Your task to perform on an android device: turn vacation reply on in the gmail app Image 0: 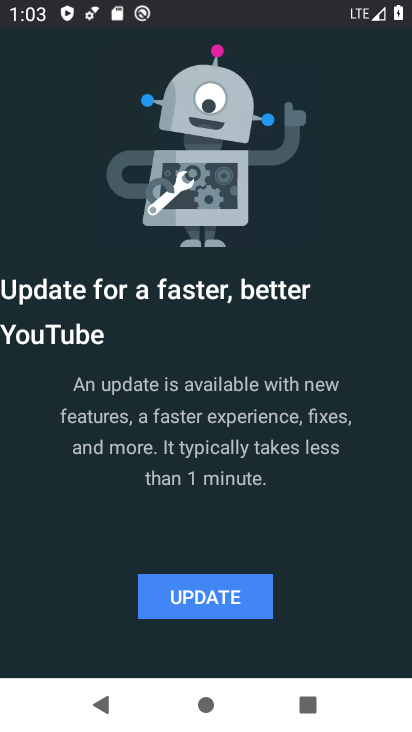
Step 0: press home button
Your task to perform on an android device: turn vacation reply on in the gmail app Image 1: 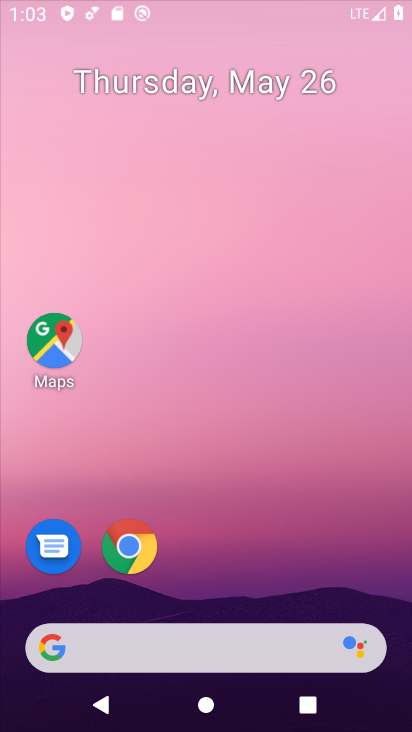
Step 1: drag from (328, 565) to (200, 3)
Your task to perform on an android device: turn vacation reply on in the gmail app Image 2: 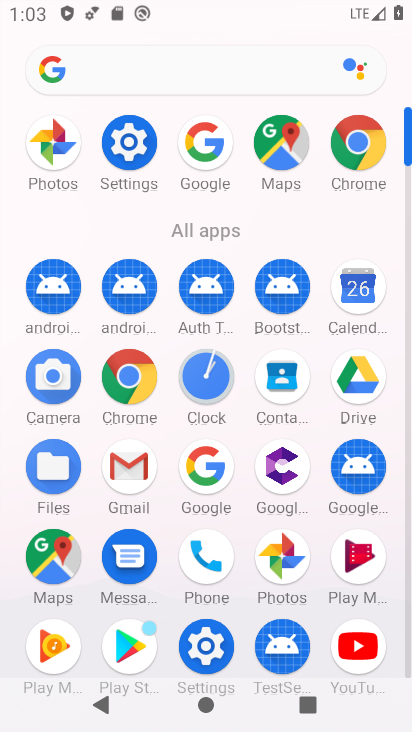
Step 2: click (126, 482)
Your task to perform on an android device: turn vacation reply on in the gmail app Image 3: 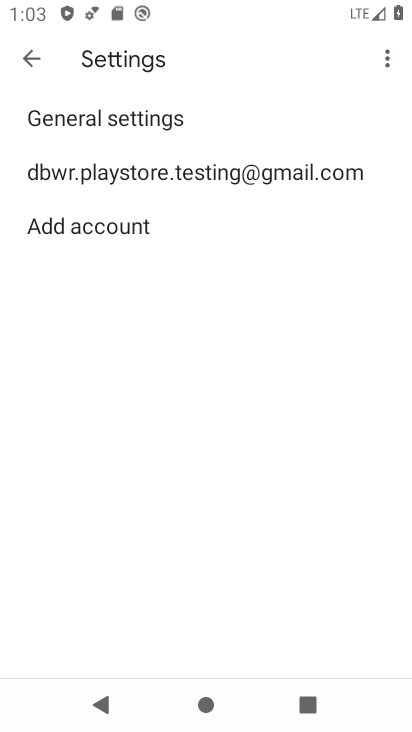
Step 3: click (68, 163)
Your task to perform on an android device: turn vacation reply on in the gmail app Image 4: 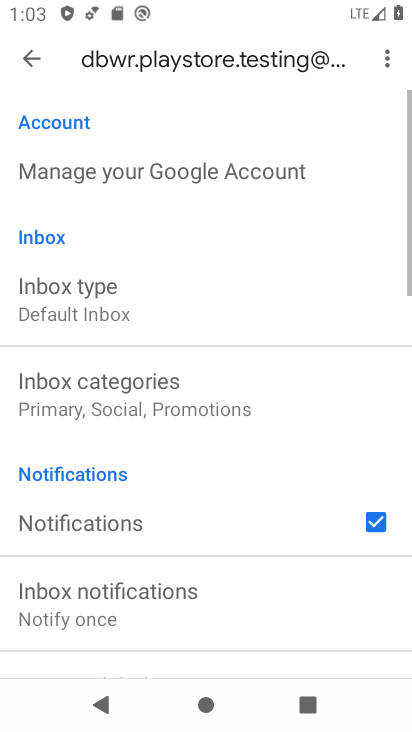
Step 4: drag from (206, 638) to (202, 59)
Your task to perform on an android device: turn vacation reply on in the gmail app Image 5: 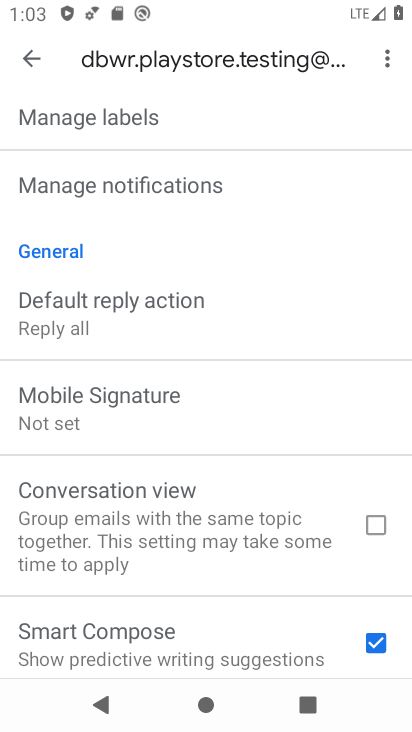
Step 5: drag from (217, 596) to (257, 70)
Your task to perform on an android device: turn vacation reply on in the gmail app Image 6: 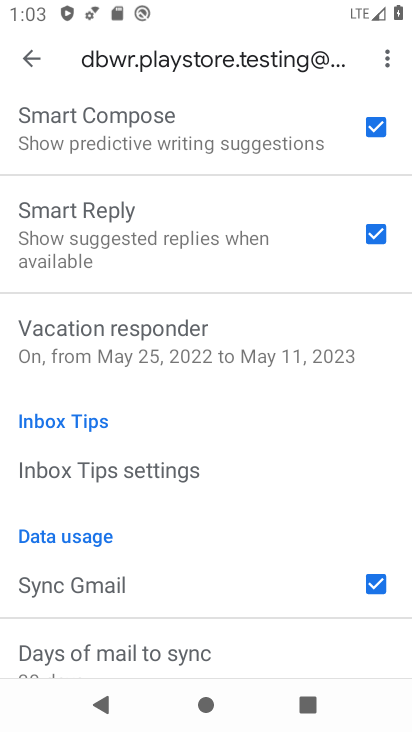
Step 6: click (149, 353)
Your task to perform on an android device: turn vacation reply on in the gmail app Image 7: 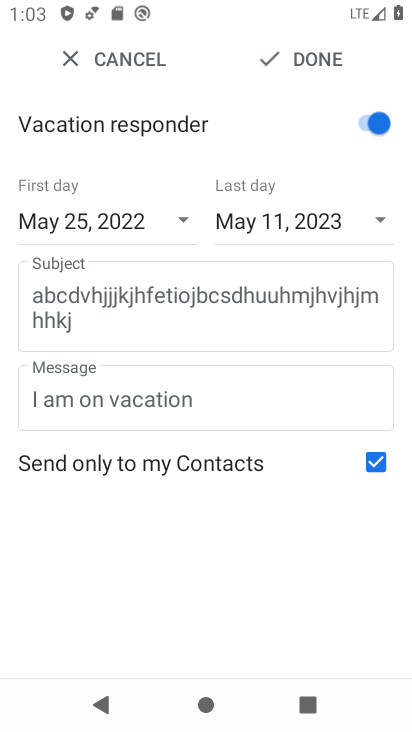
Step 7: click (314, 64)
Your task to perform on an android device: turn vacation reply on in the gmail app Image 8: 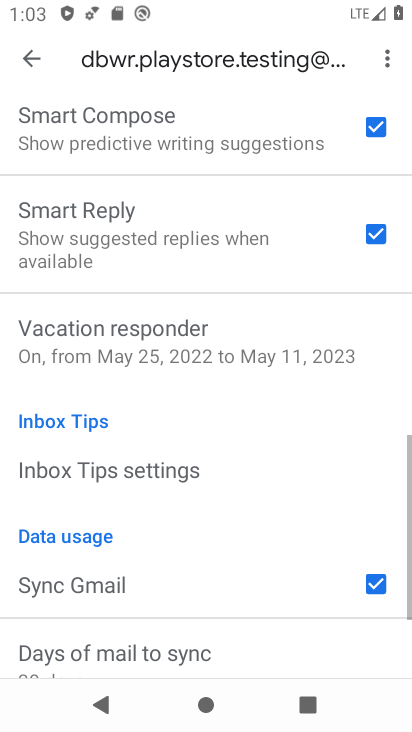
Step 8: task complete